Your task to perform on an android device: Open wifi settings Image 0: 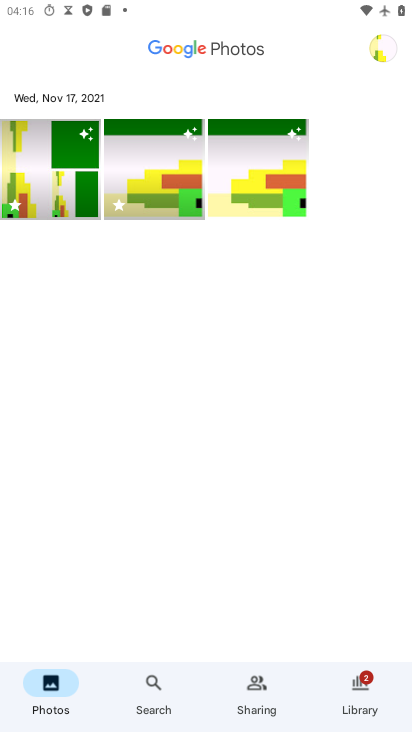
Step 0: press back button
Your task to perform on an android device: Open wifi settings Image 1: 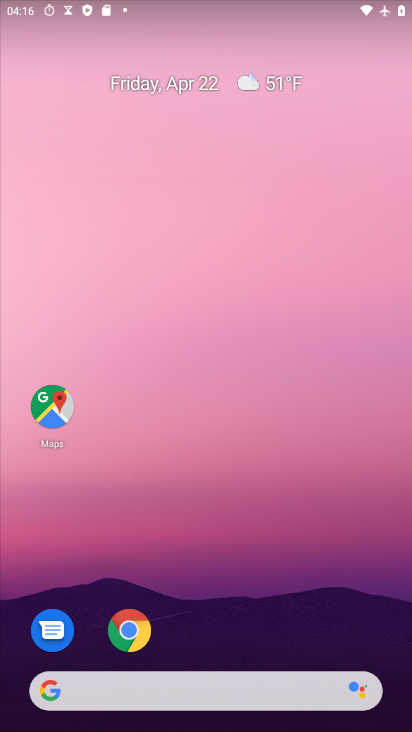
Step 1: drag from (290, 560) to (326, 42)
Your task to perform on an android device: Open wifi settings Image 2: 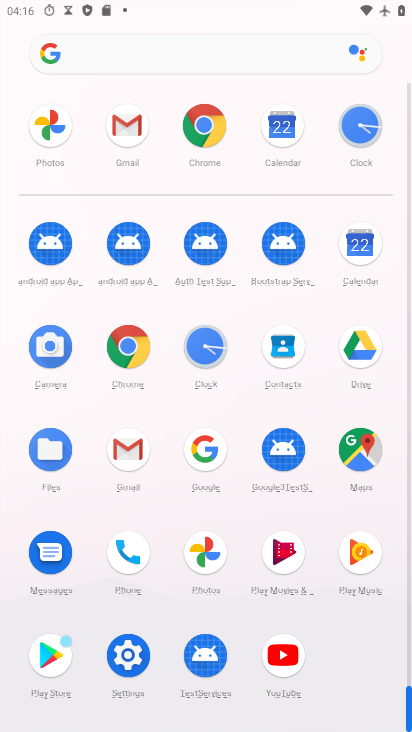
Step 2: click (124, 651)
Your task to perform on an android device: Open wifi settings Image 3: 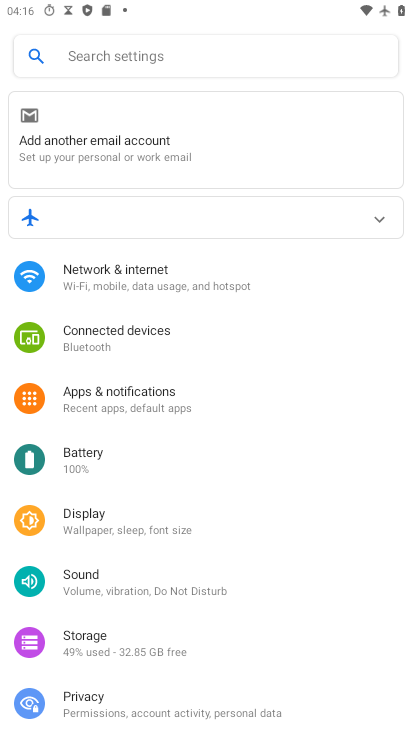
Step 3: click (167, 287)
Your task to perform on an android device: Open wifi settings Image 4: 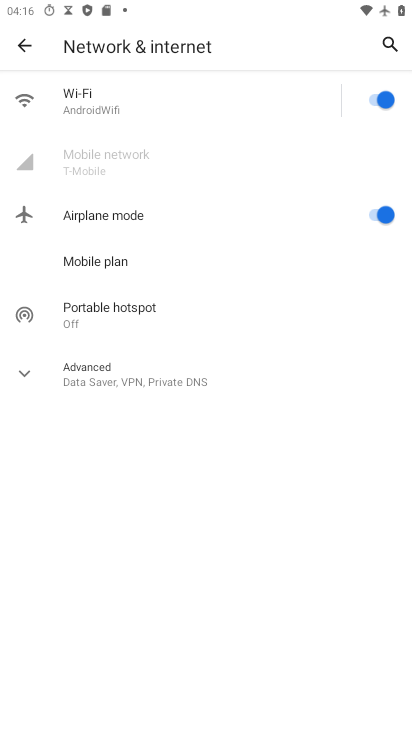
Step 4: click (147, 89)
Your task to perform on an android device: Open wifi settings Image 5: 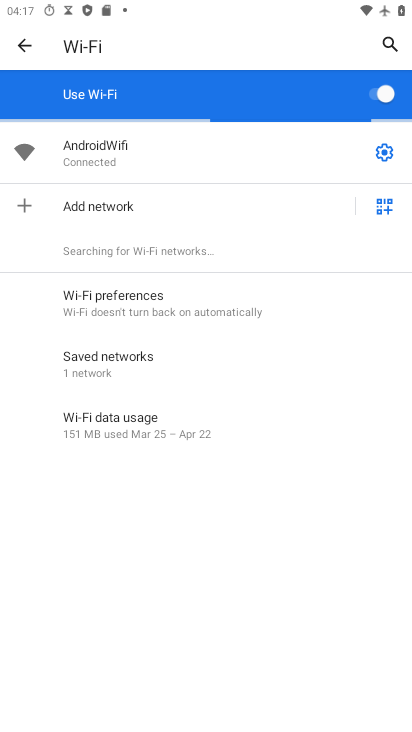
Step 5: task complete